Your task to perform on an android device: Go to internet settings Image 0: 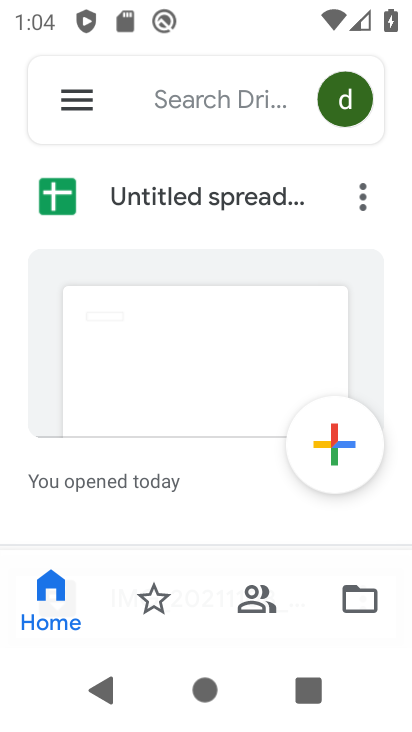
Step 0: press home button
Your task to perform on an android device: Go to internet settings Image 1: 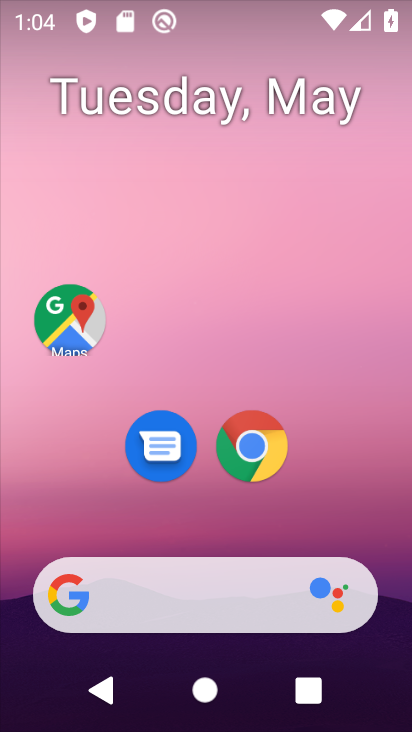
Step 1: drag from (222, 528) to (143, 17)
Your task to perform on an android device: Go to internet settings Image 2: 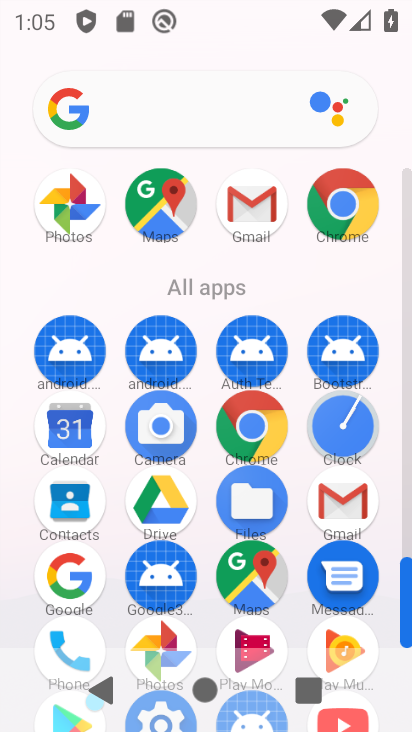
Step 2: drag from (204, 629) to (159, 136)
Your task to perform on an android device: Go to internet settings Image 3: 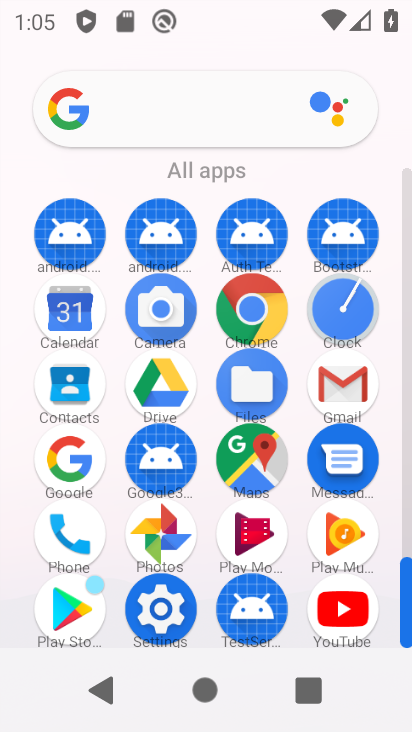
Step 3: click (157, 609)
Your task to perform on an android device: Go to internet settings Image 4: 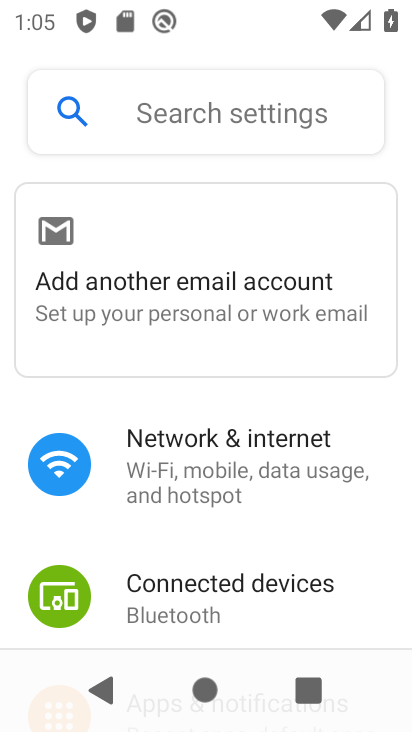
Step 4: click (301, 456)
Your task to perform on an android device: Go to internet settings Image 5: 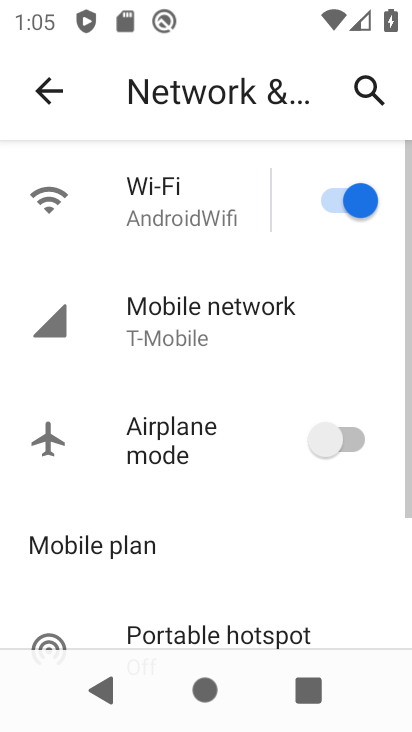
Step 5: task complete